Your task to perform on an android device: Open Amazon Image 0: 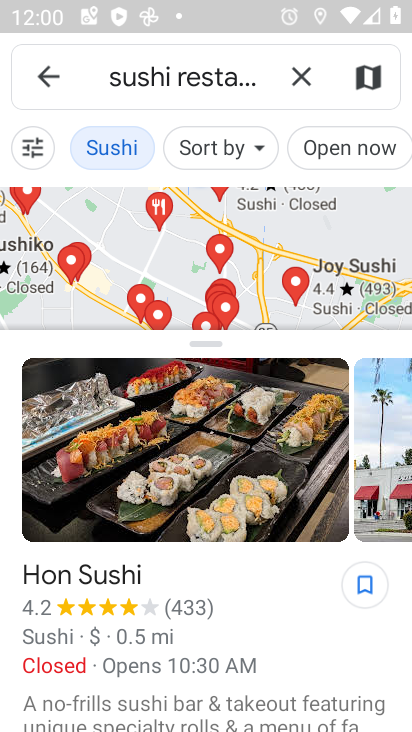
Step 0: press home button
Your task to perform on an android device: Open Amazon Image 1: 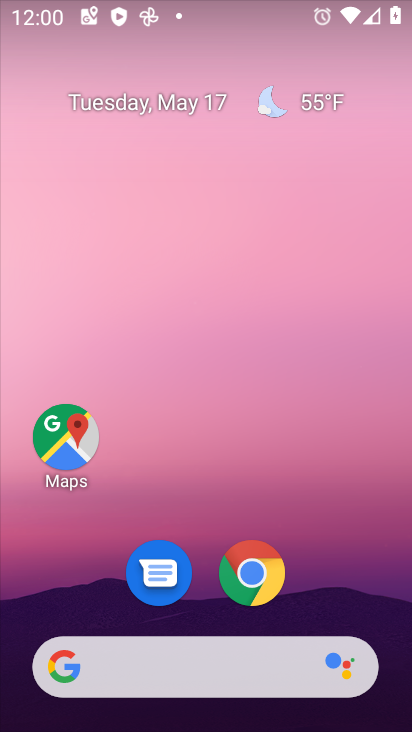
Step 1: click (270, 574)
Your task to perform on an android device: Open Amazon Image 2: 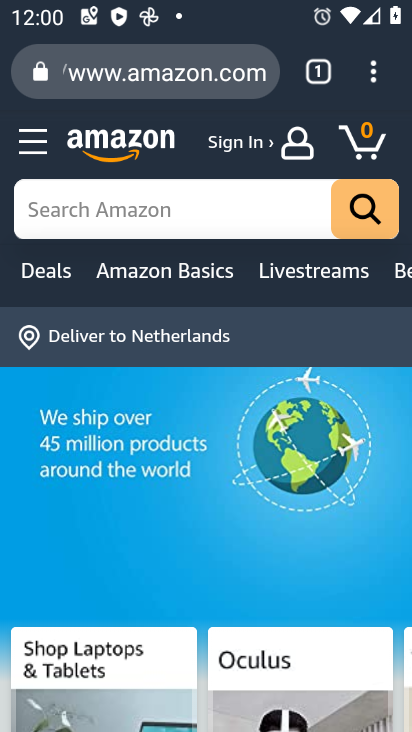
Step 2: task complete